Your task to perform on an android device: toggle priority inbox in the gmail app Image 0: 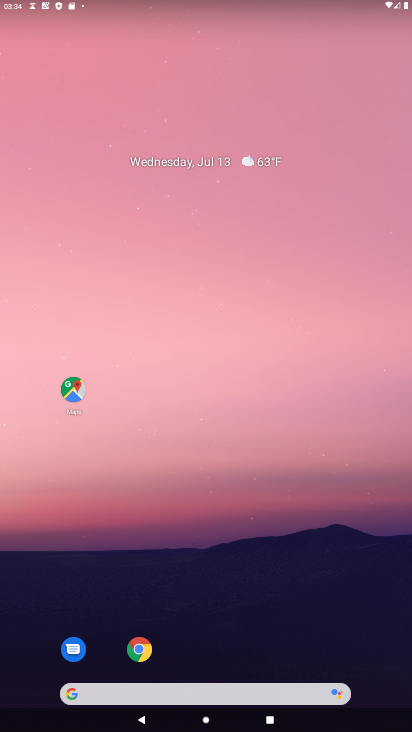
Step 0: drag from (228, 607) to (369, 77)
Your task to perform on an android device: toggle priority inbox in the gmail app Image 1: 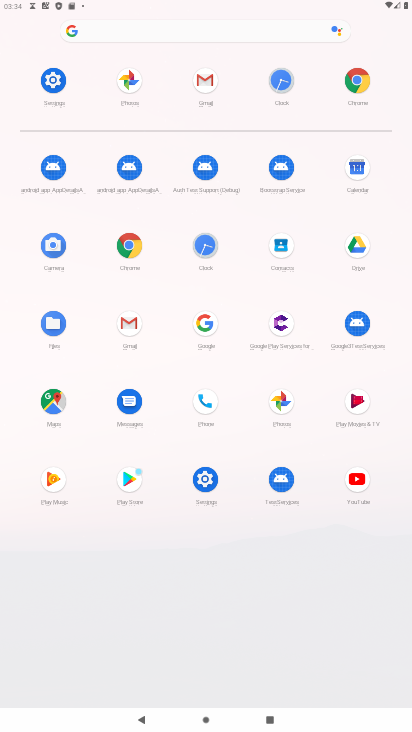
Step 1: click (135, 315)
Your task to perform on an android device: toggle priority inbox in the gmail app Image 2: 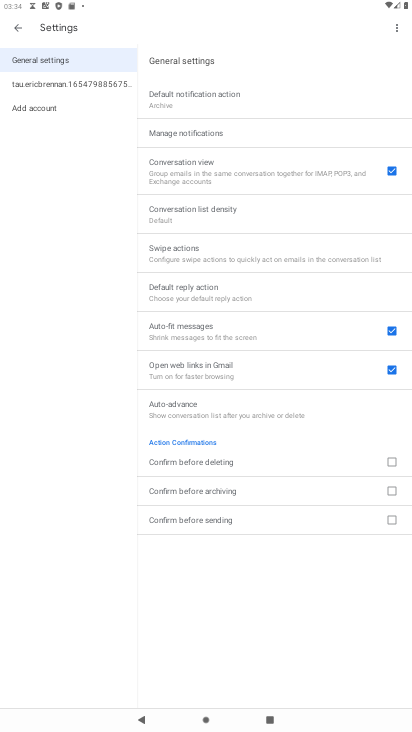
Step 2: click (33, 85)
Your task to perform on an android device: toggle priority inbox in the gmail app Image 3: 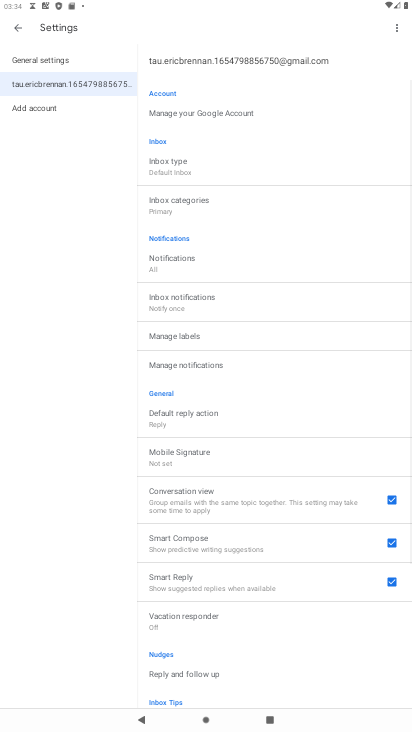
Step 3: click (188, 176)
Your task to perform on an android device: toggle priority inbox in the gmail app Image 4: 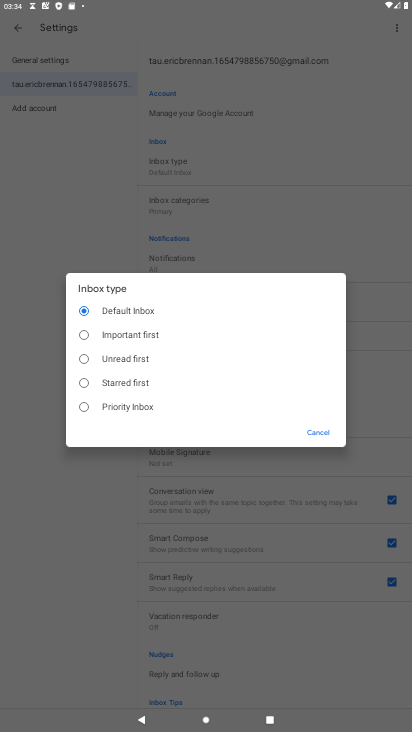
Step 4: click (154, 399)
Your task to perform on an android device: toggle priority inbox in the gmail app Image 5: 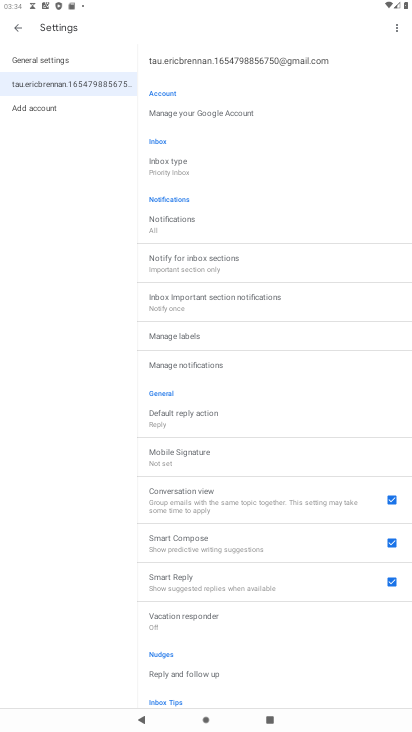
Step 5: task complete